Your task to perform on an android device: check storage Image 0: 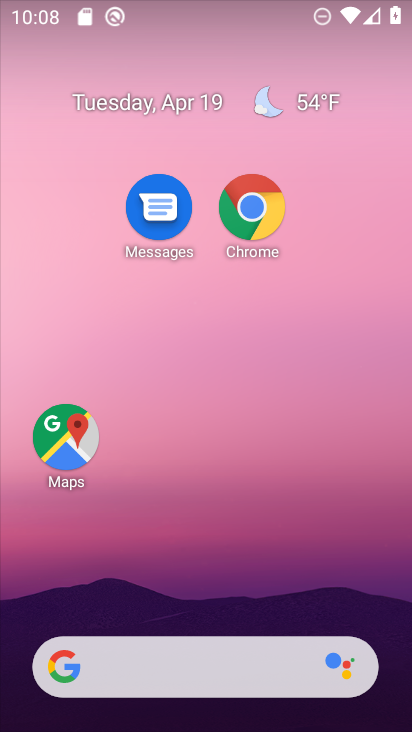
Step 0: drag from (240, 636) to (248, 255)
Your task to perform on an android device: check storage Image 1: 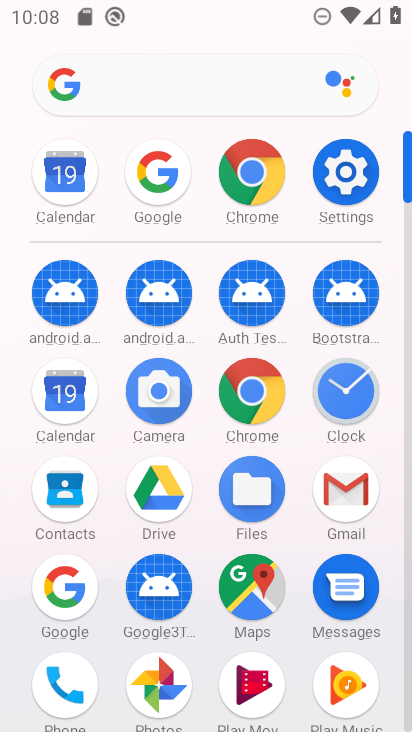
Step 1: click (337, 177)
Your task to perform on an android device: check storage Image 2: 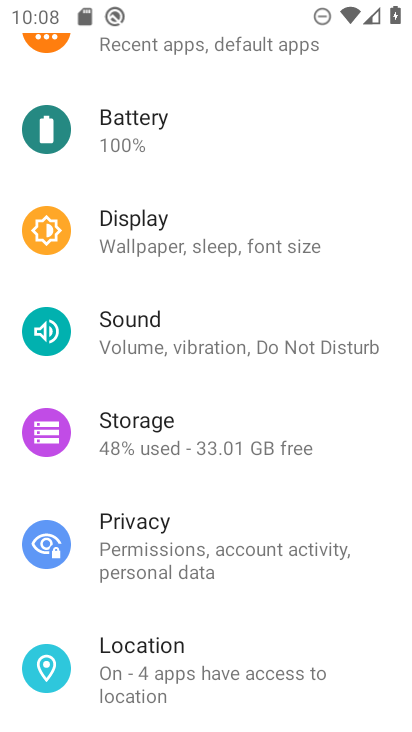
Step 2: click (186, 436)
Your task to perform on an android device: check storage Image 3: 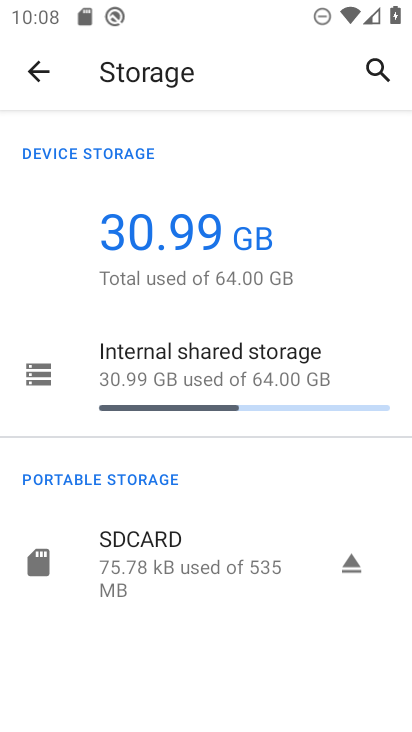
Step 3: task complete